Your task to perform on an android device: open wifi settings Image 0: 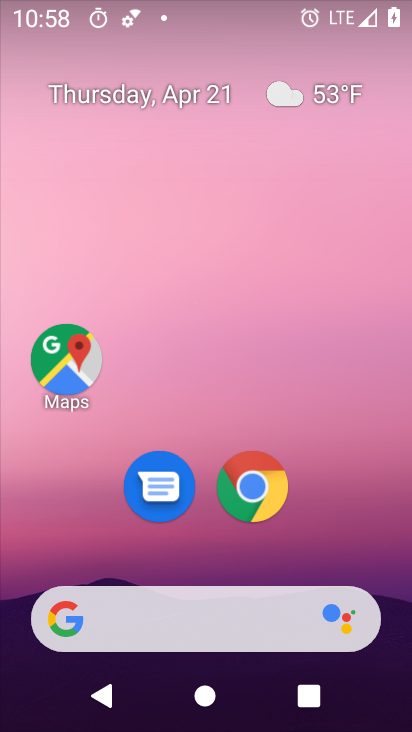
Step 0: drag from (373, 296) to (371, 255)
Your task to perform on an android device: open wifi settings Image 1: 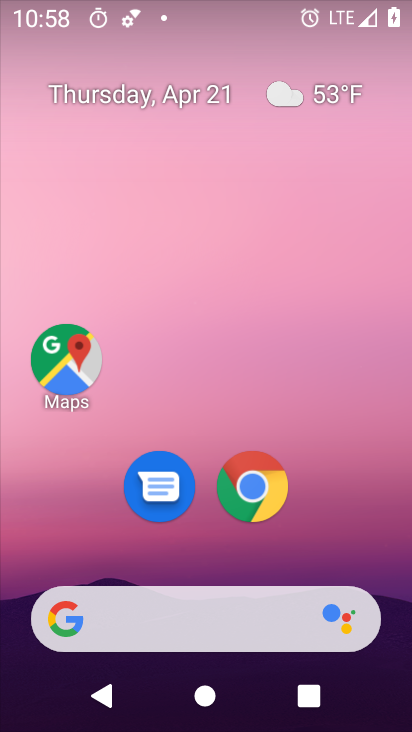
Step 1: drag from (373, 537) to (351, 176)
Your task to perform on an android device: open wifi settings Image 2: 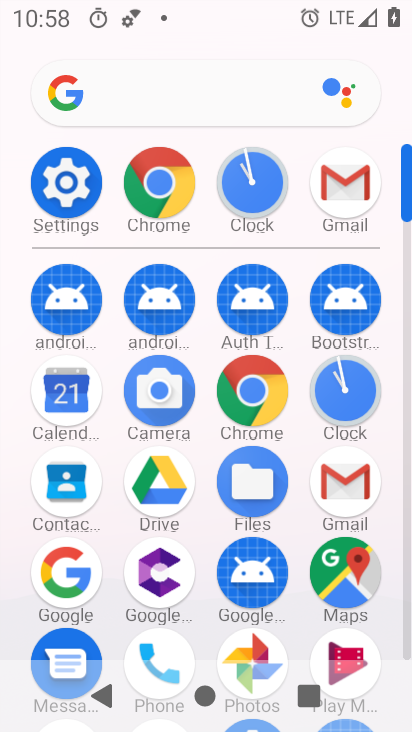
Step 2: click (59, 191)
Your task to perform on an android device: open wifi settings Image 3: 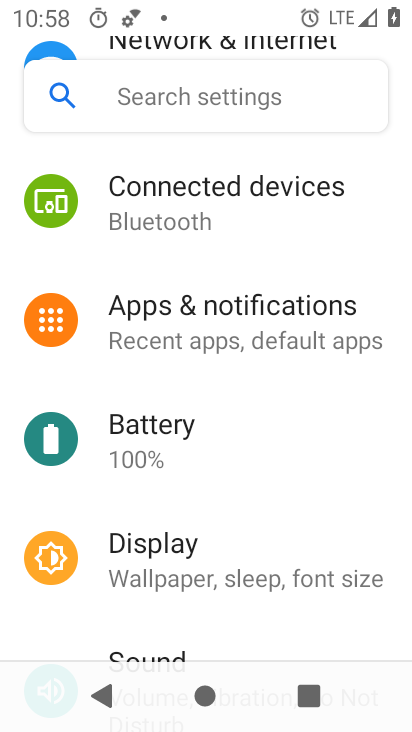
Step 3: click (199, 42)
Your task to perform on an android device: open wifi settings Image 4: 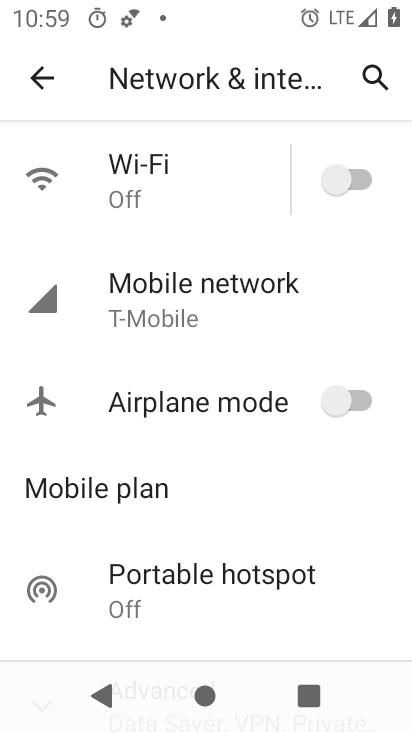
Step 4: click (366, 177)
Your task to perform on an android device: open wifi settings Image 5: 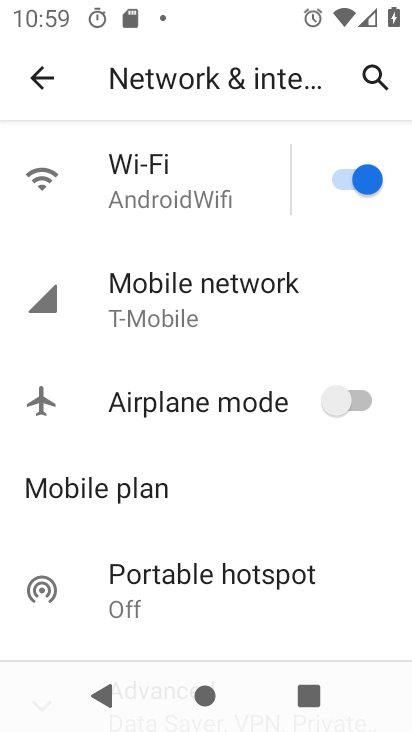
Step 5: task complete